Your task to perform on an android device: Search for vegetarian restaurants on Maps Image 0: 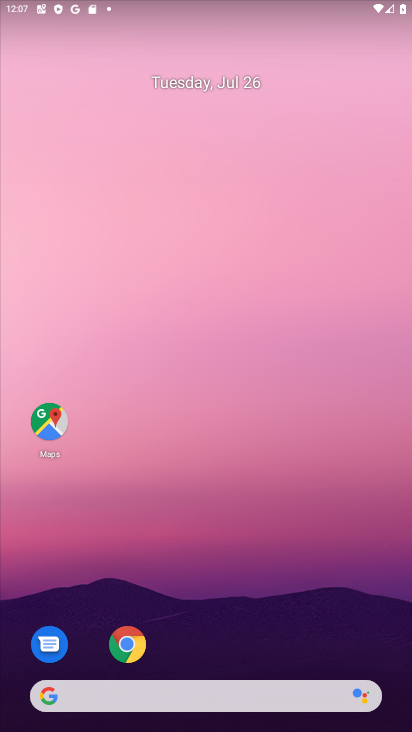
Step 0: click (48, 431)
Your task to perform on an android device: Search for vegetarian restaurants on Maps Image 1: 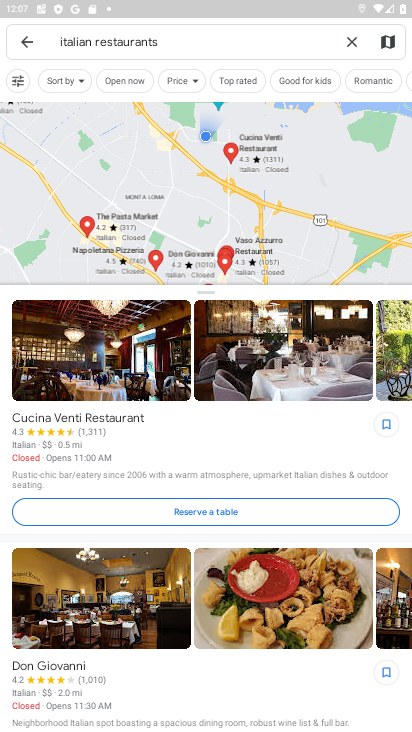
Step 1: click (354, 44)
Your task to perform on an android device: Search for vegetarian restaurants on Maps Image 2: 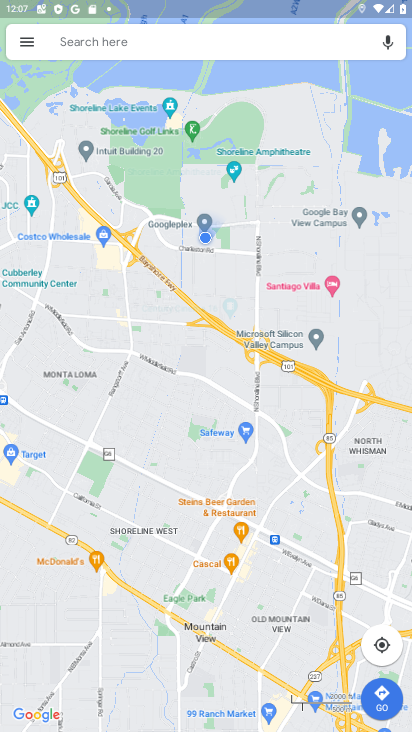
Step 2: click (147, 40)
Your task to perform on an android device: Search for vegetarian restaurants on Maps Image 3: 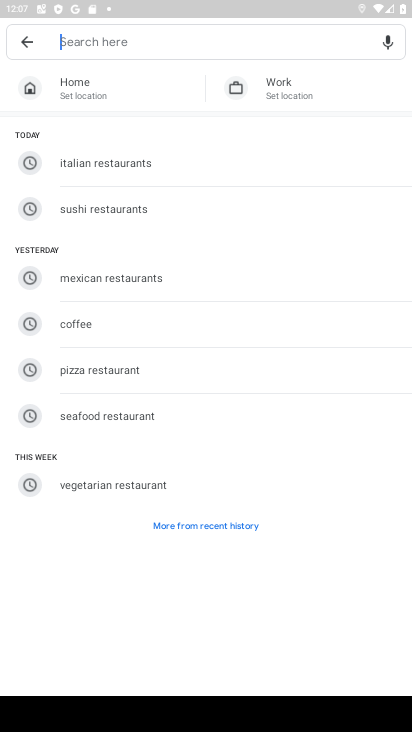
Step 3: type "vegetarian restaurants"
Your task to perform on an android device: Search for vegetarian restaurants on Maps Image 4: 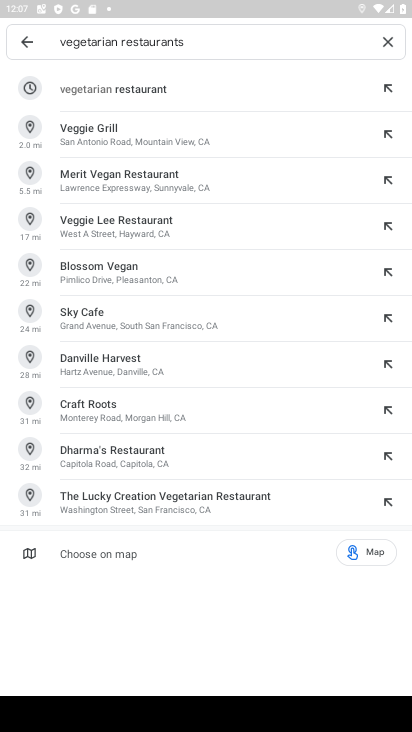
Step 4: click (97, 96)
Your task to perform on an android device: Search for vegetarian restaurants on Maps Image 5: 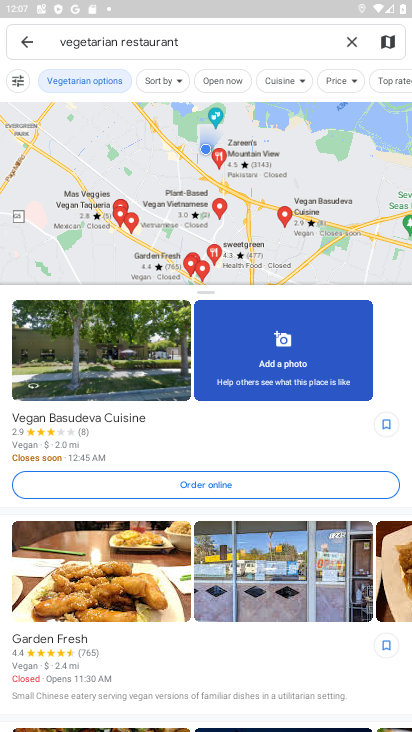
Step 5: task complete